Your task to perform on an android device: turn off airplane mode Image 0: 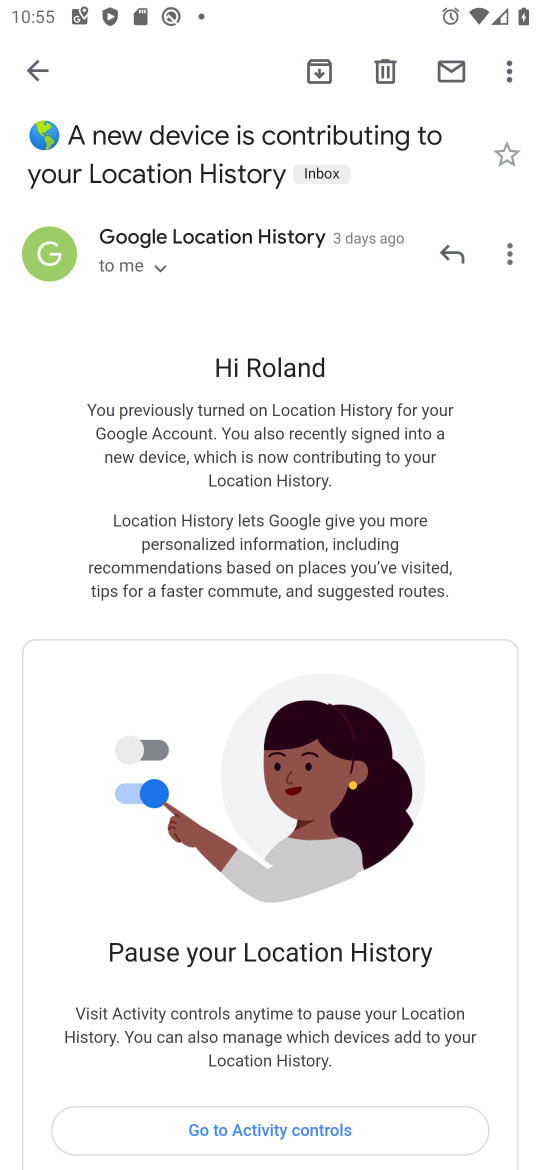
Step 0: press home button
Your task to perform on an android device: turn off airplane mode Image 1: 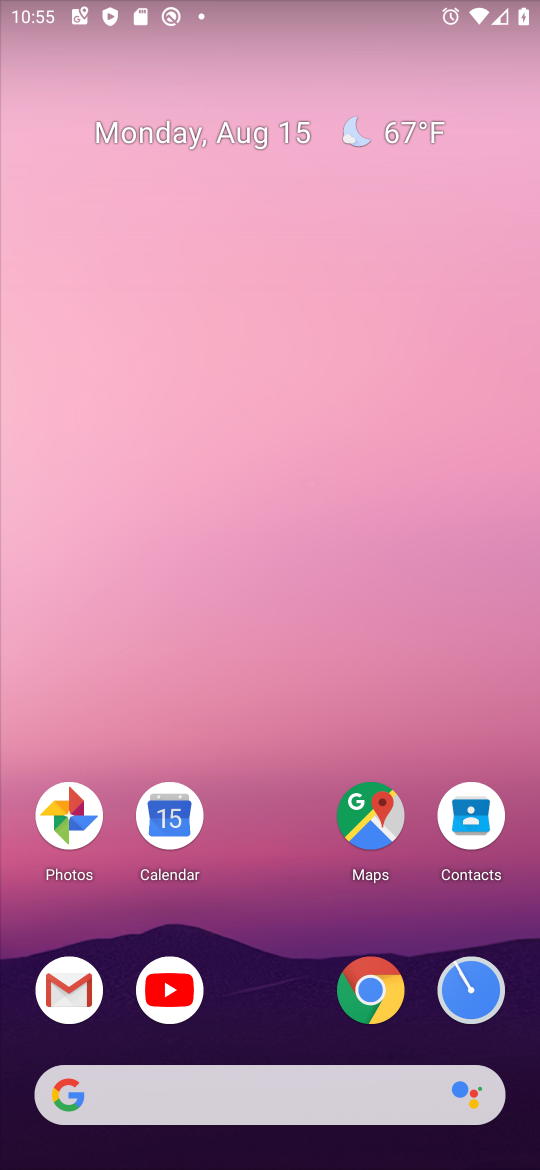
Step 1: drag from (276, 932) to (177, 264)
Your task to perform on an android device: turn off airplane mode Image 2: 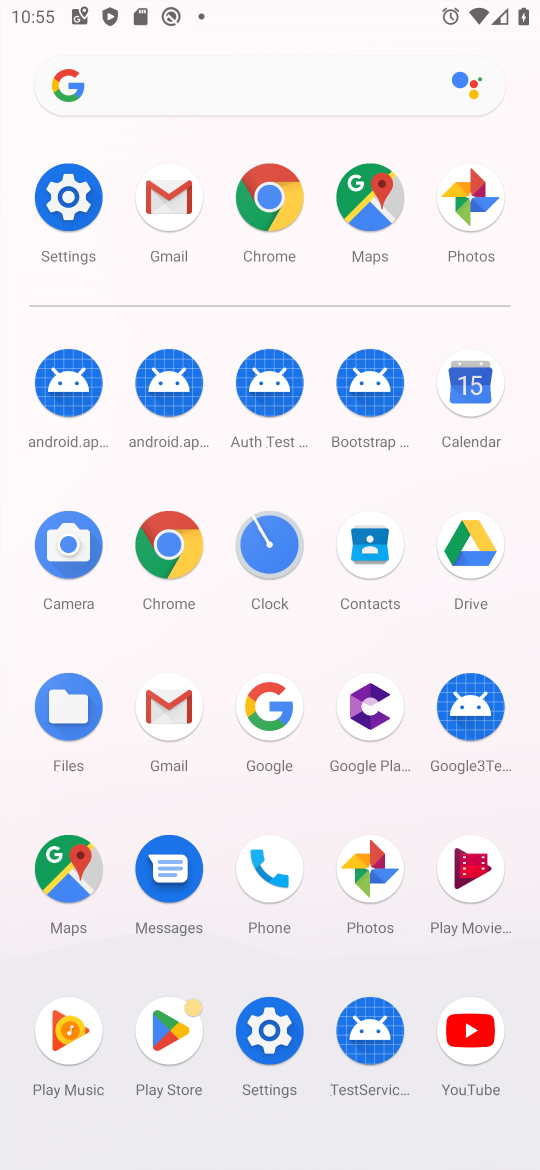
Step 2: click (73, 187)
Your task to perform on an android device: turn off airplane mode Image 3: 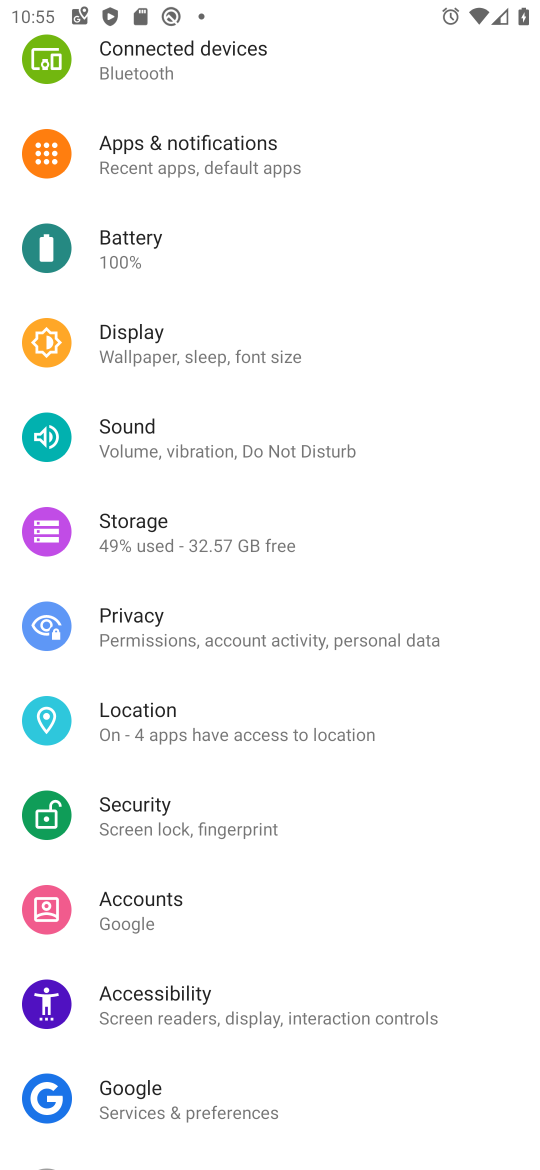
Step 3: drag from (207, 221) to (187, 517)
Your task to perform on an android device: turn off airplane mode Image 4: 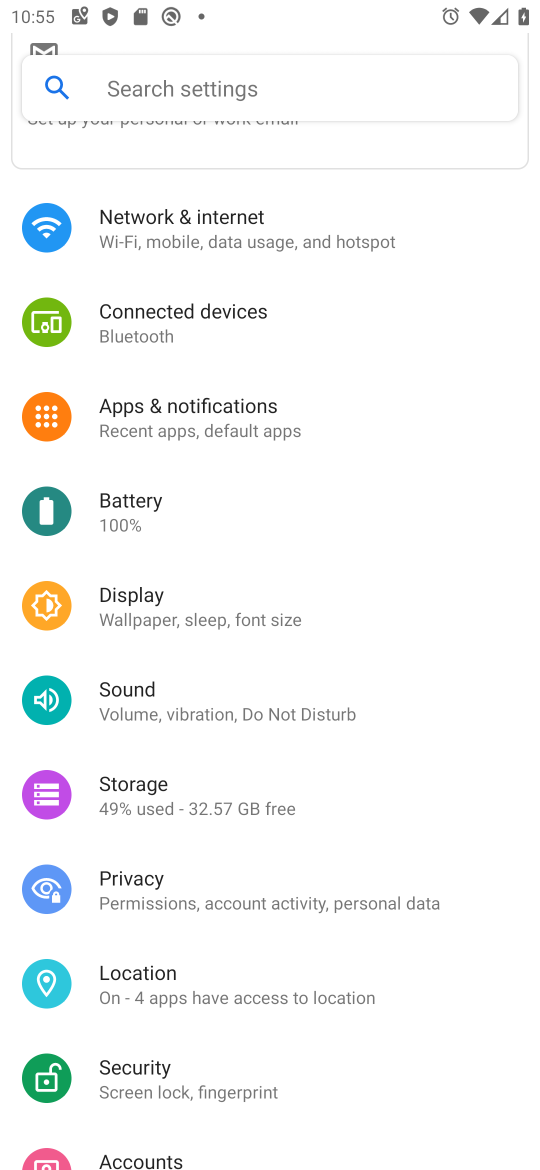
Step 4: click (179, 222)
Your task to perform on an android device: turn off airplane mode Image 5: 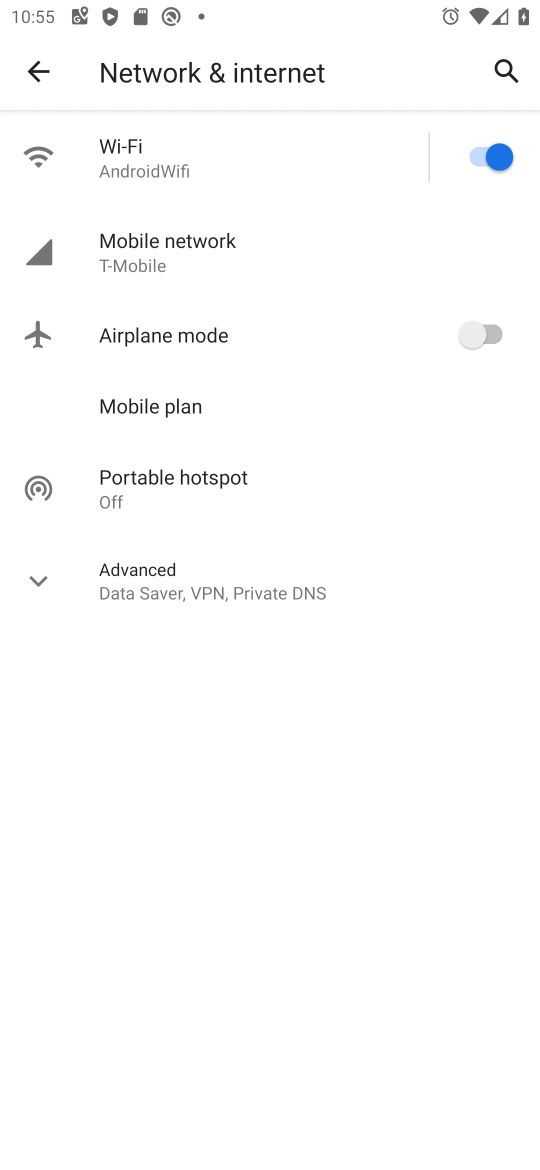
Step 5: task complete